Your task to perform on an android device: see creations saved in the google photos Image 0: 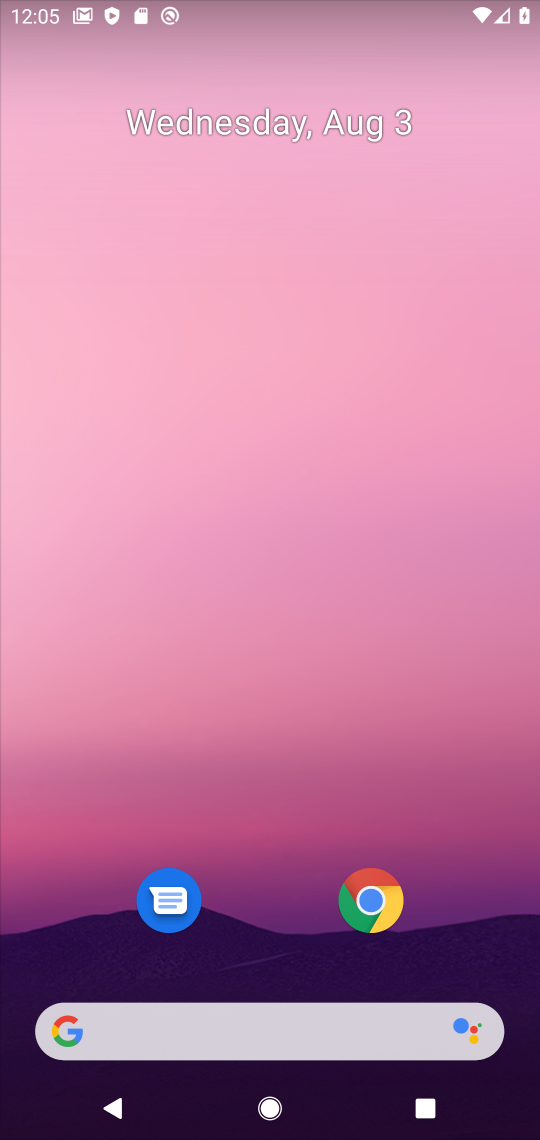
Step 0: drag from (239, 761) to (297, 141)
Your task to perform on an android device: see creations saved in the google photos Image 1: 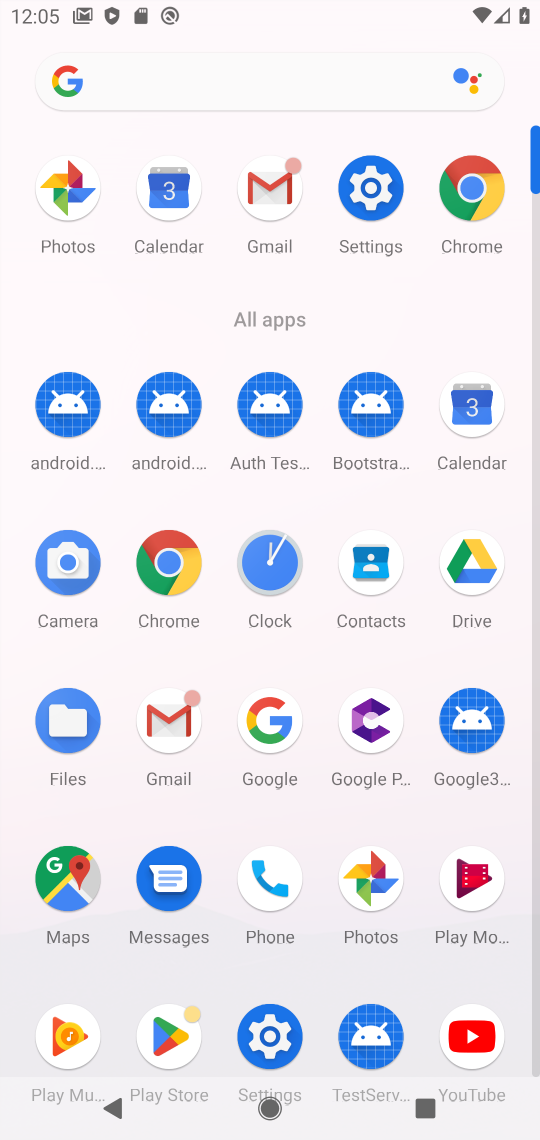
Step 1: click (368, 868)
Your task to perform on an android device: see creations saved in the google photos Image 2: 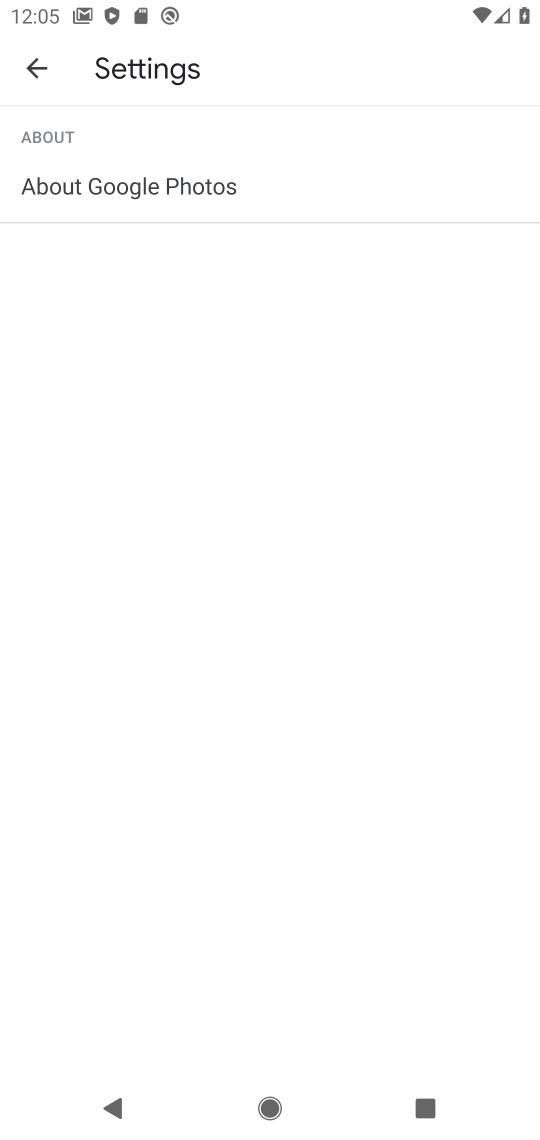
Step 2: click (53, 70)
Your task to perform on an android device: see creations saved in the google photos Image 3: 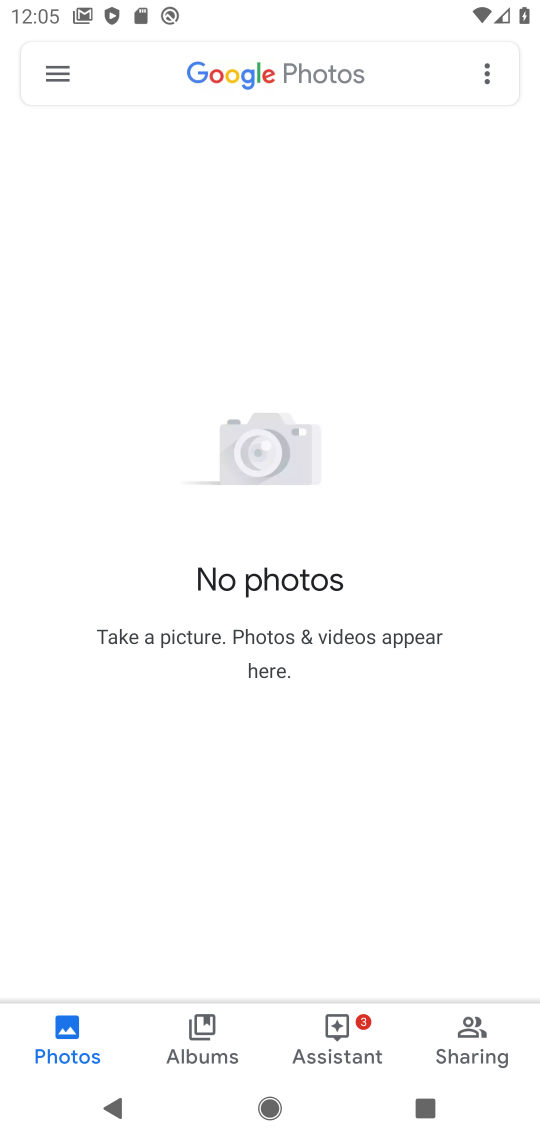
Step 3: click (358, 1030)
Your task to perform on an android device: see creations saved in the google photos Image 4: 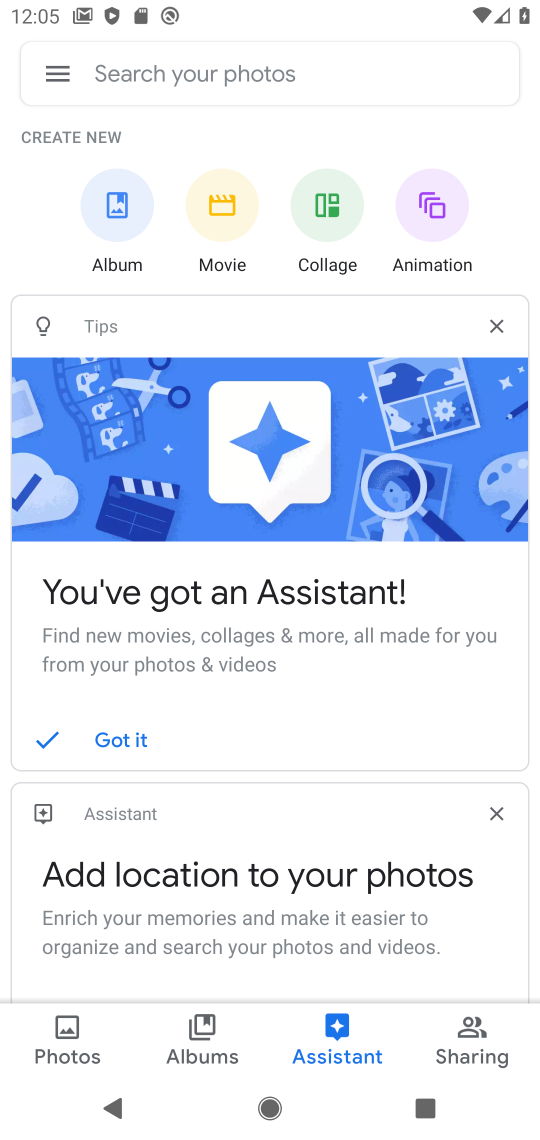
Step 4: click (471, 1057)
Your task to perform on an android device: see creations saved in the google photos Image 5: 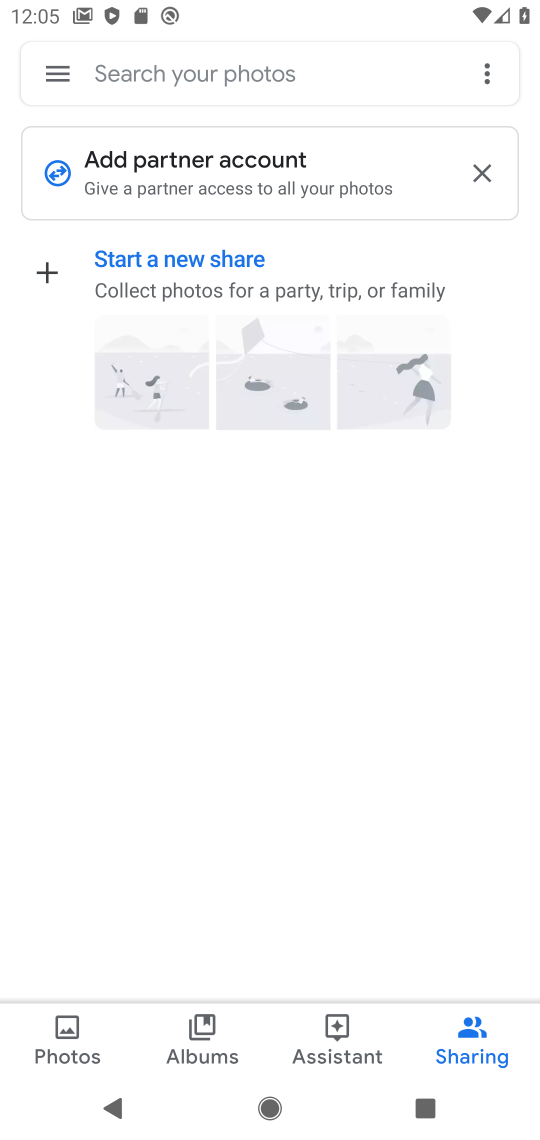
Step 5: click (219, 1040)
Your task to perform on an android device: see creations saved in the google photos Image 6: 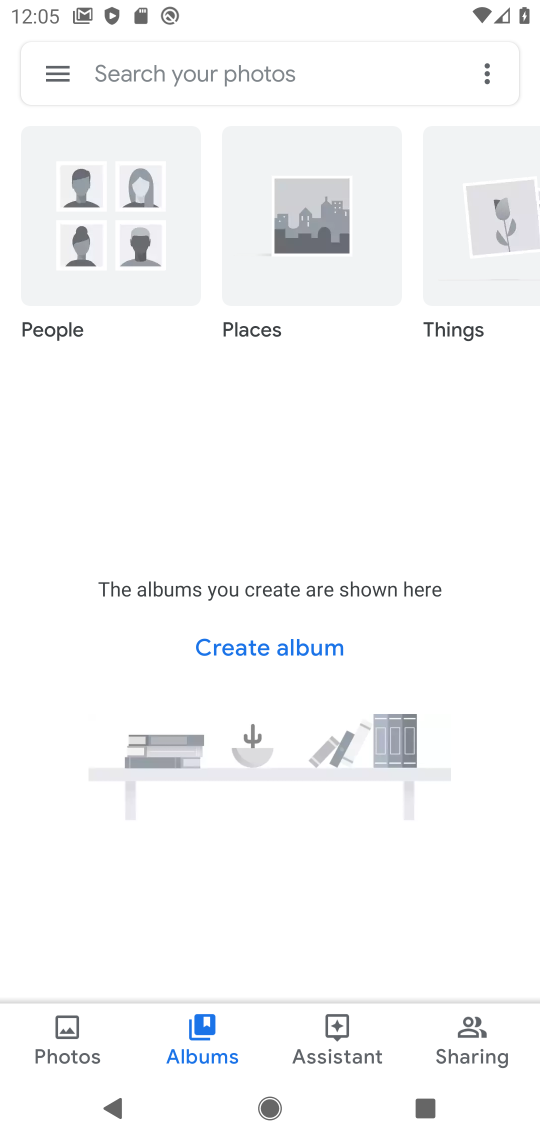
Step 6: task complete